Your task to perform on an android device: Toggle the flashlight Image 0: 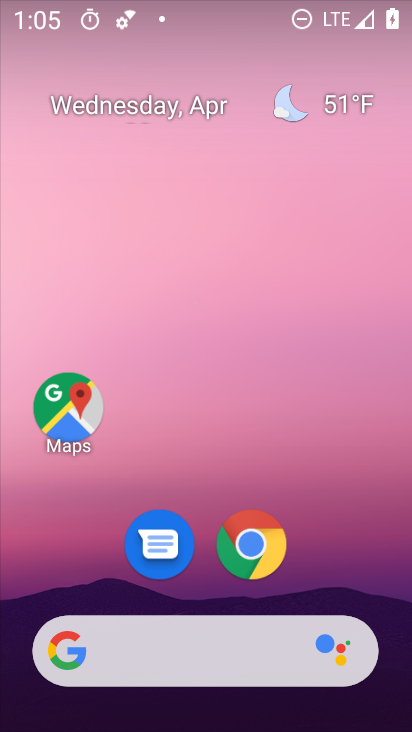
Step 0: drag from (231, 8) to (208, 296)
Your task to perform on an android device: Toggle the flashlight Image 1: 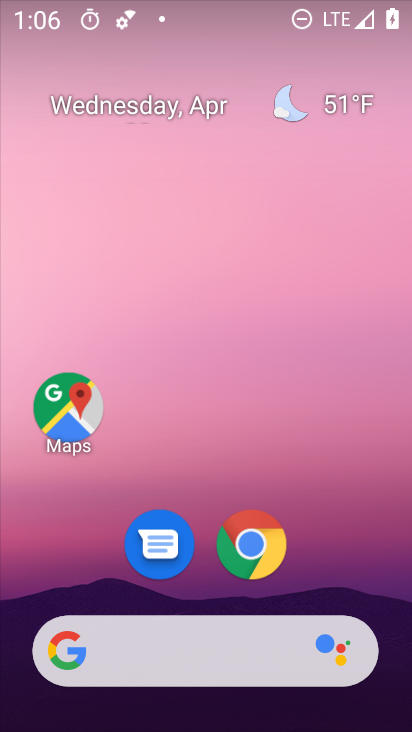
Step 1: drag from (256, 1) to (224, 370)
Your task to perform on an android device: Toggle the flashlight Image 2: 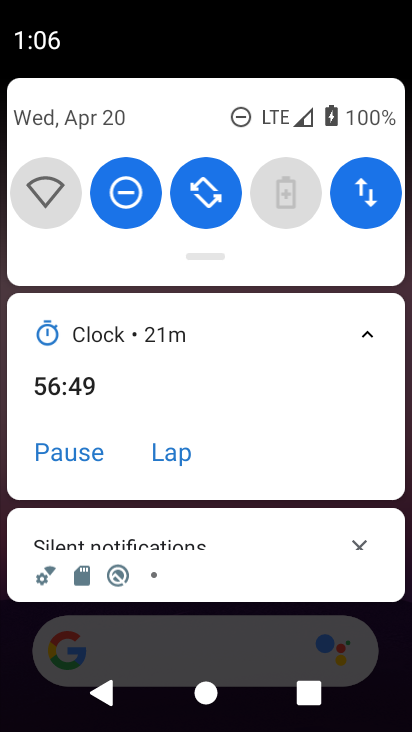
Step 2: drag from (245, 151) to (218, 399)
Your task to perform on an android device: Toggle the flashlight Image 3: 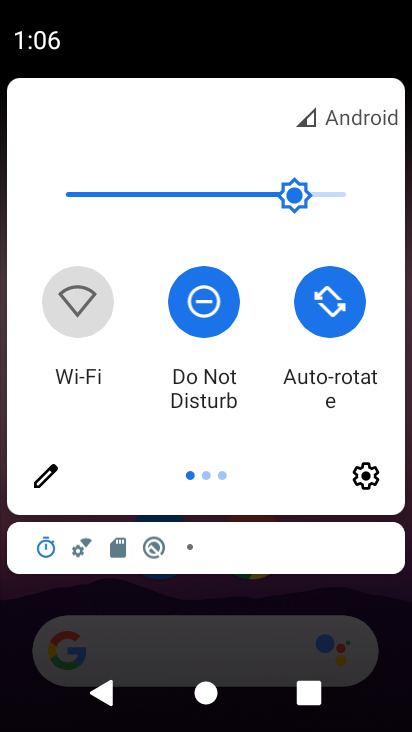
Step 3: click (55, 472)
Your task to perform on an android device: Toggle the flashlight Image 4: 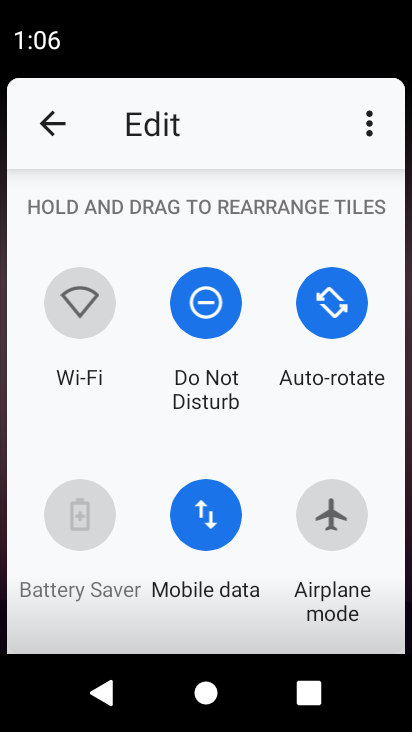
Step 4: task complete